Your task to perform on an android device: toggle pop-ups in chrome Image 0: 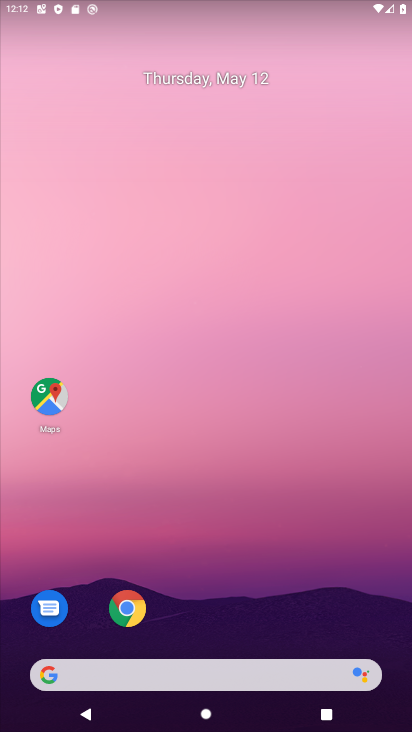
Step 0: click (218, 724)
Your task to perform on an android device: toggle pop-ups in chrome Image 1: 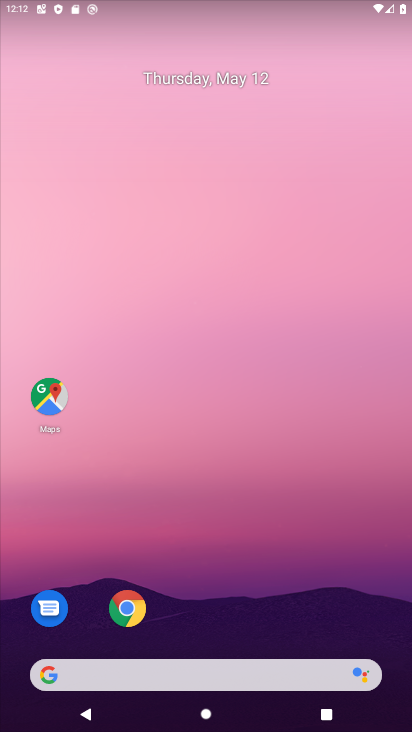
Step 1: click (133, 611)
Your task to perform on an android device: toggle pop-ups in chrome Image 2: 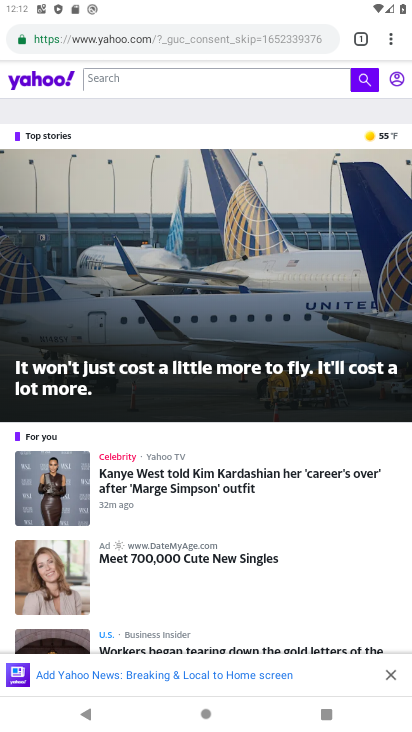
Step 2: click (389, 32)
Your task to perform on an android device: toggle pop-ups in chrome Image 3: 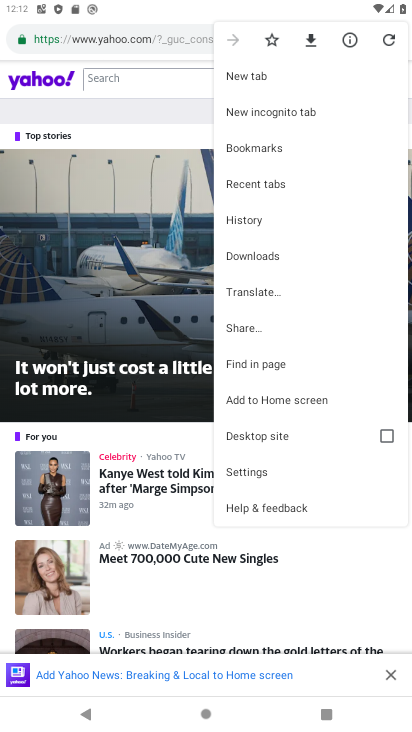
Step 3: click (266, 476)
Your task to perform on an android device: toggle pop-ups in chrome Image 4: 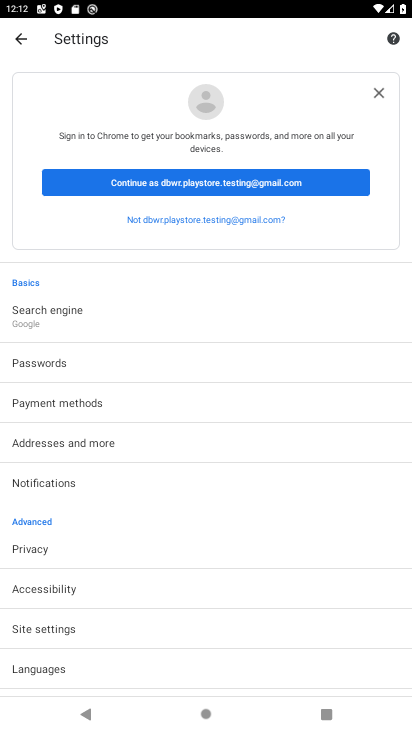
Step 4: click (63, 639)
Your task to perform on an android device: toggle pop-ups in chrome Image 5: 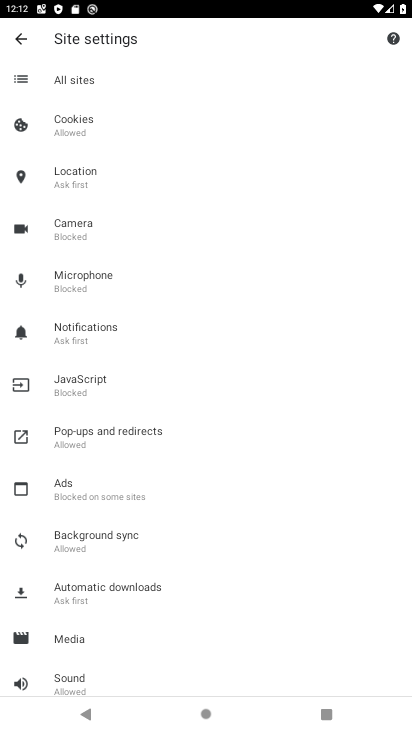
Step 5: click (102, 436)
Your task to perform on an android device: toggle pop-ups in chrome Image 6: 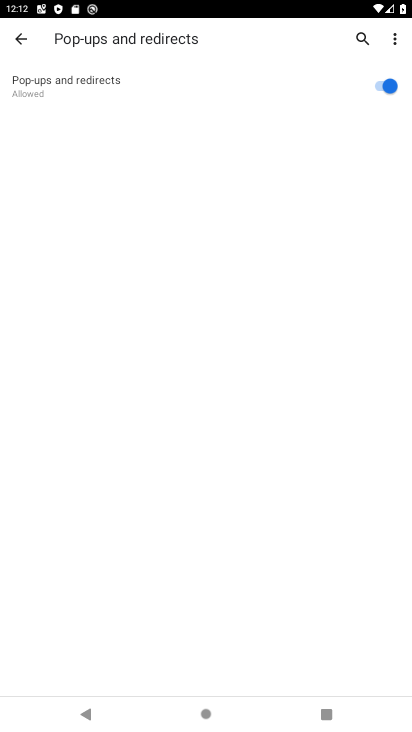
Step 6: click (389, 85)
Your task to perform on an android device: toggle pop-ups in chrome Image 7: 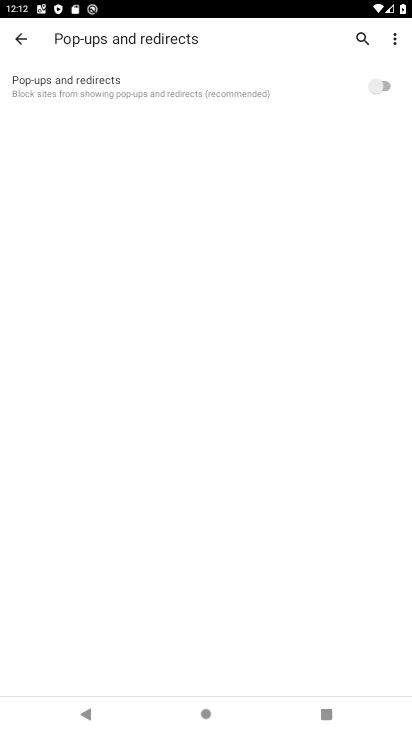
Step 7: task complete